Your task to perform on an android device: What's the news about the US dollar exchange rate? Image 0: 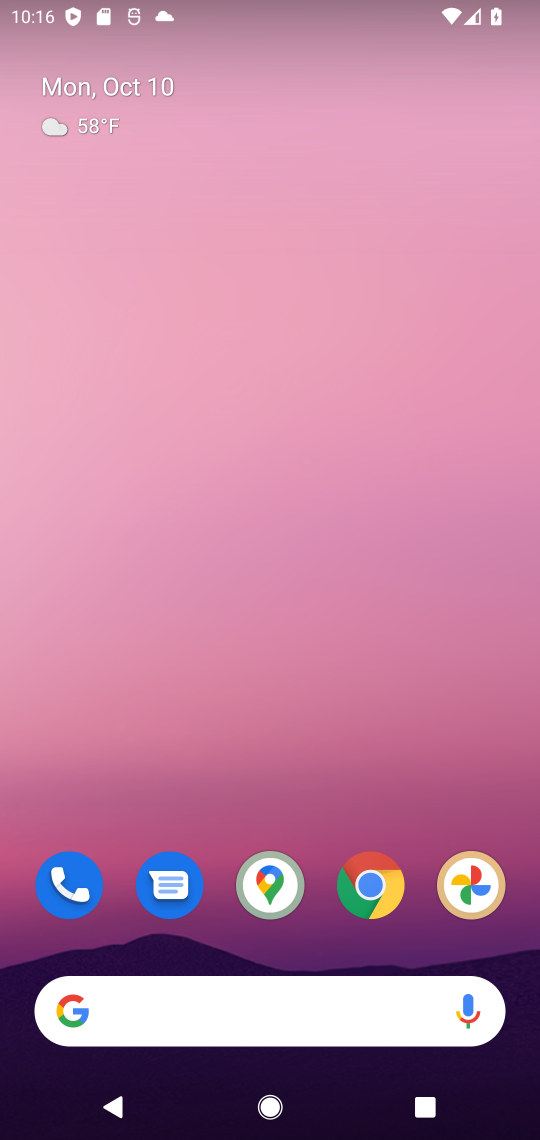
Step 0: click (376, 890)
Your task to perform on an android device: What's the news about the US dollar exchange rate? Image 1: 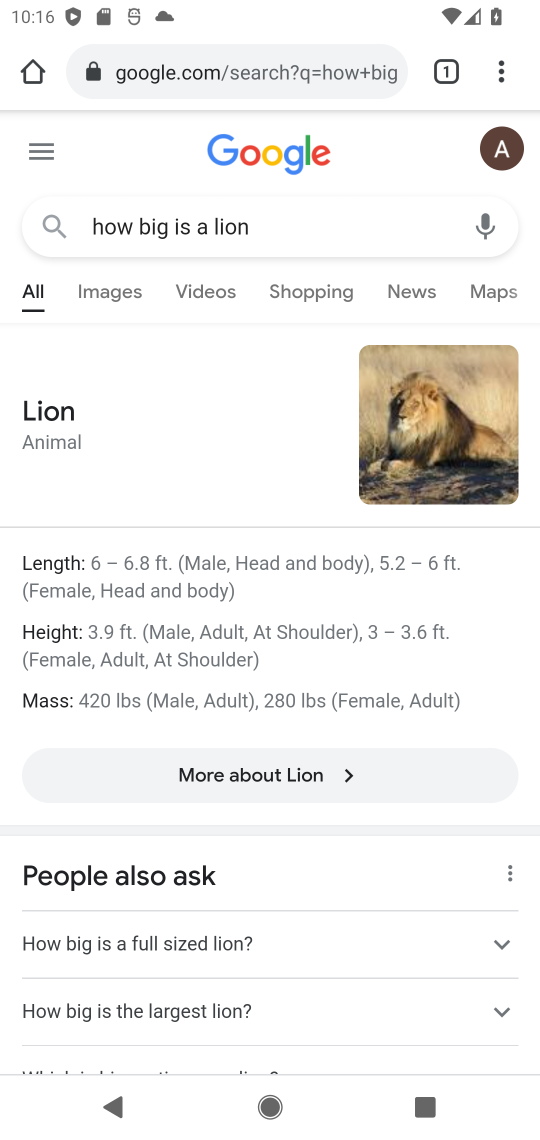
Step 1: click (315, 63)
Your task to perform on an android device: What's the news about the US dollar exchange rate? Image 2: 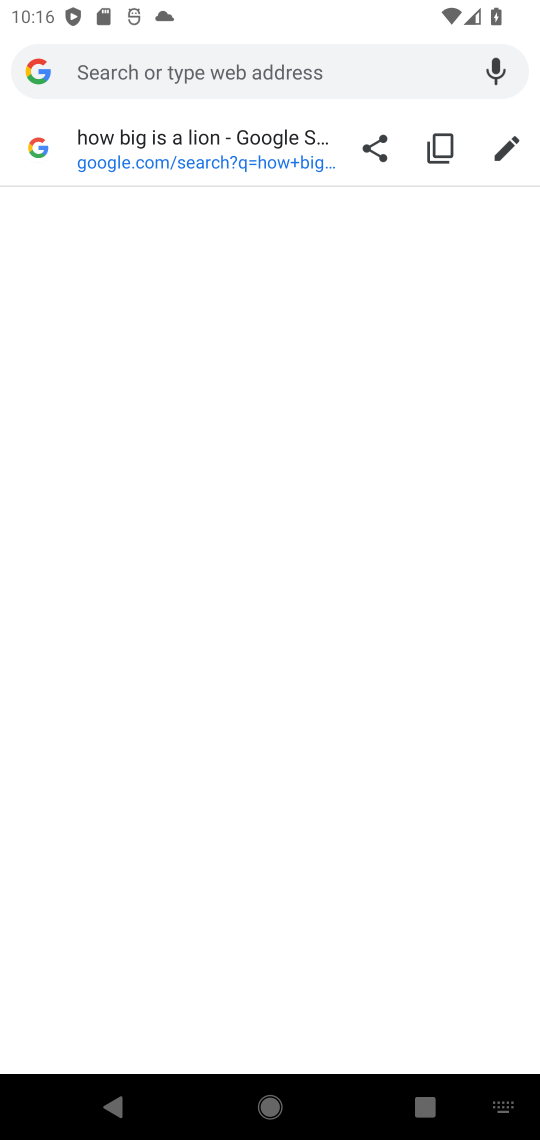
Step 2: type "US dollar exchange rate"
Your task to perform on an android device: What's the news about the US dollar exchange rate? Image 3: 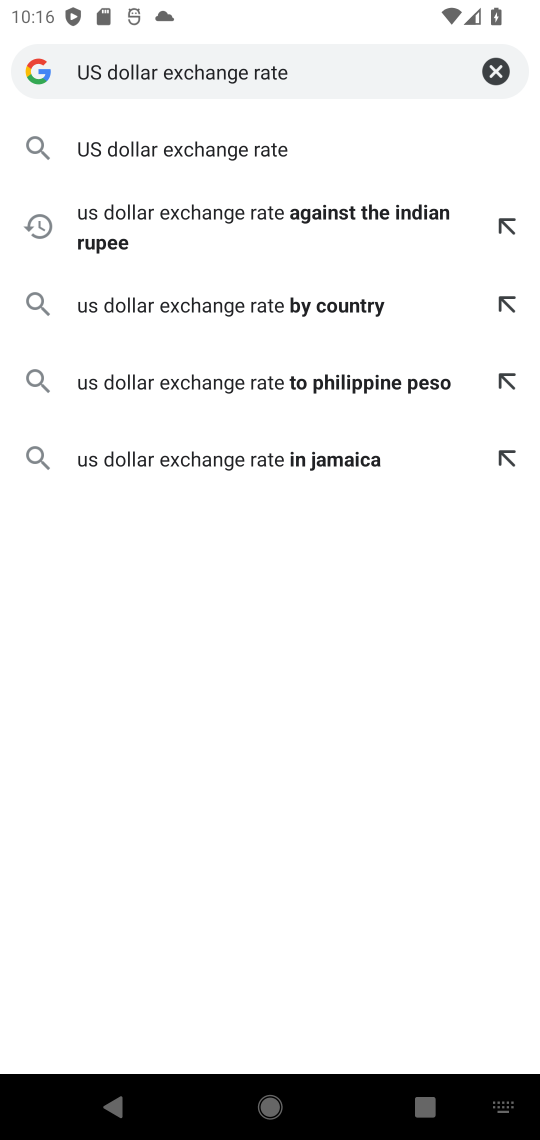
Step 3: click (268, 135)
Your task to perform on an android device: What's the news about the US dollar exchange rate? Image 4: 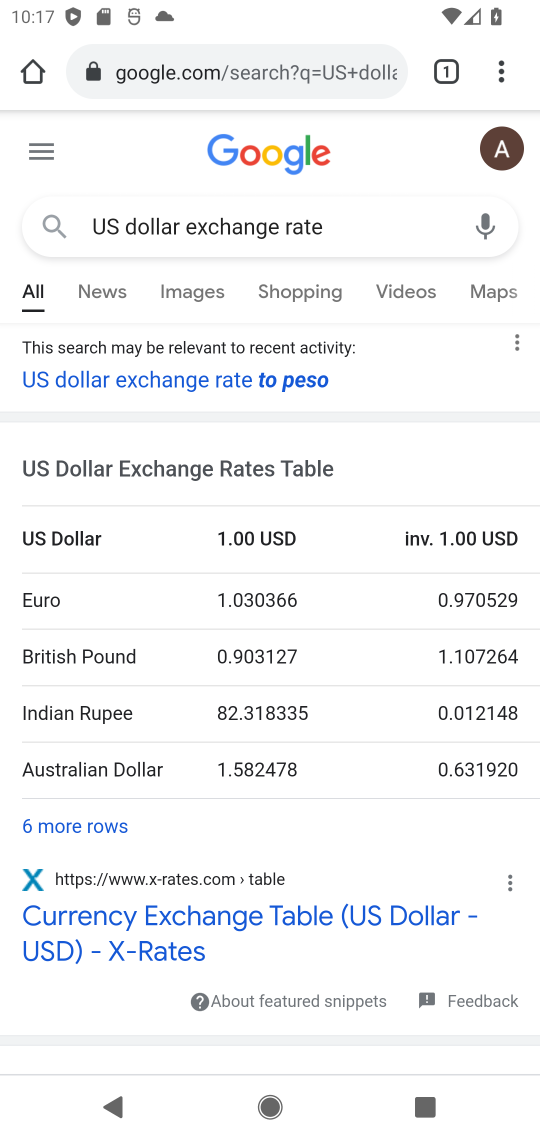
Step 4: click (86, 293)
Your task to perform on an android device: What's the news about the US dollar exchange rate? Image 5: 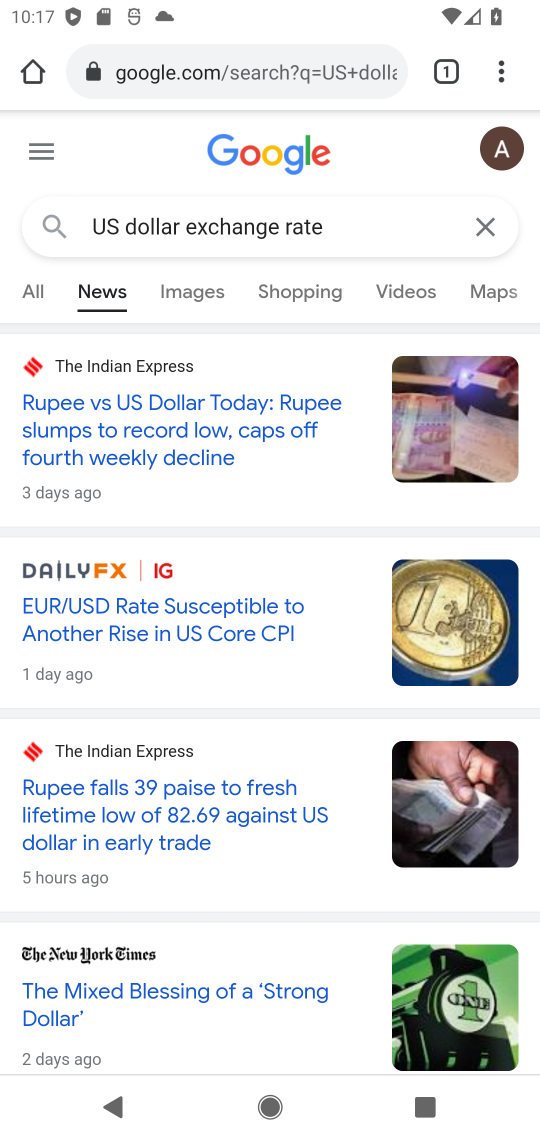
Step 5: task complete